Your task to perform on an android device: Set the phone to "Do not disturb". Image 0: 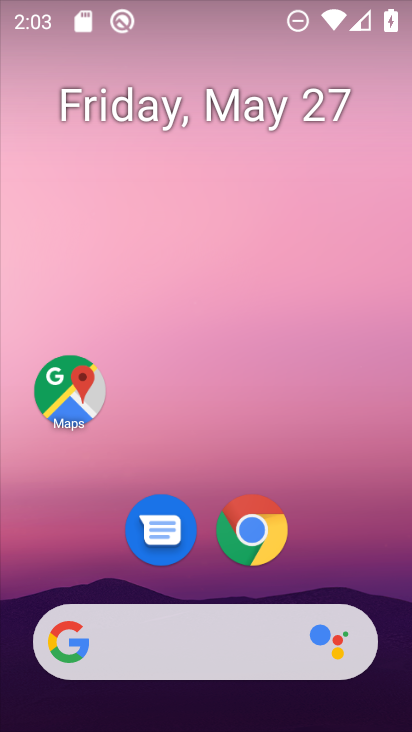
Step 0: drag from (182, 18) to (172, 596)
Your task to perform on an android device: Set the phone to "Do not disturb". Image 1: 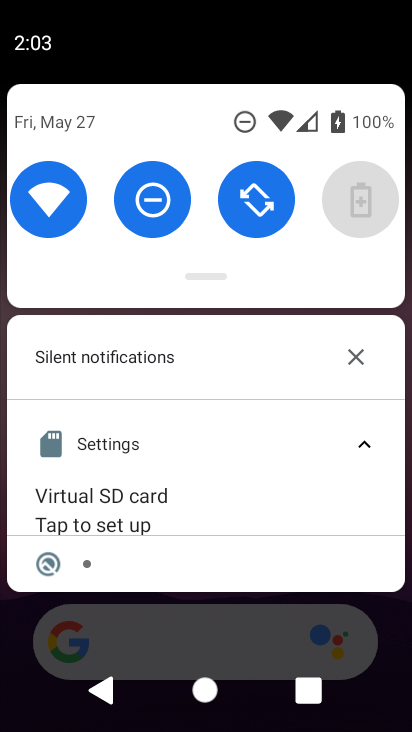
Step 1: task complete